Your task to perform on an android device: visit the assistant section in the google photos Image 0: 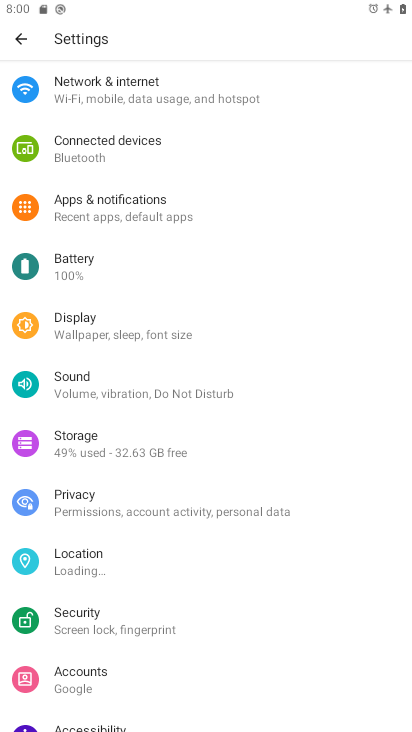
Step 0: press home button
Your task to perform on an android device: visit the assistant section in the google photos Image 1: 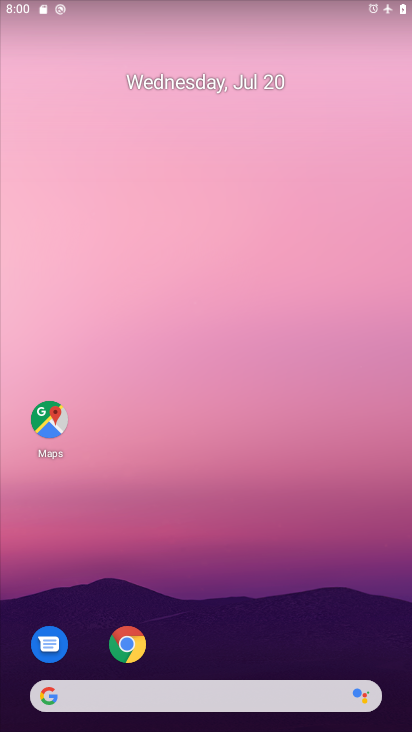
Step 1: drag from (142, 676) to (177, 377)
Your task to perform on an android device: visit the assistant section in the google photos Image 2: 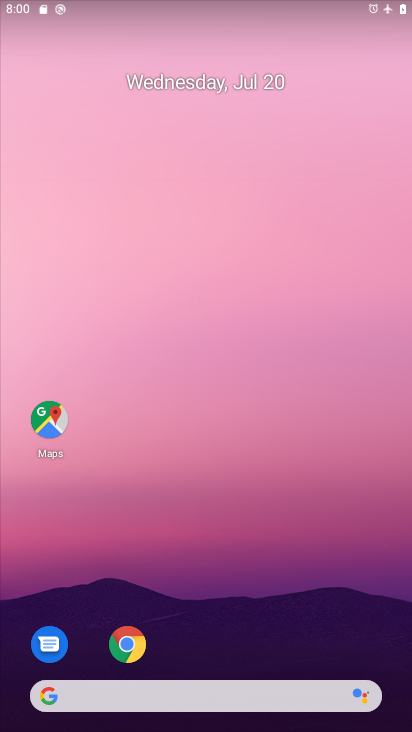
Step 2: drag from (206, 693) to (261, 298)
Your task to perform on an android device: visit the assistant section in the google photos Image 3: 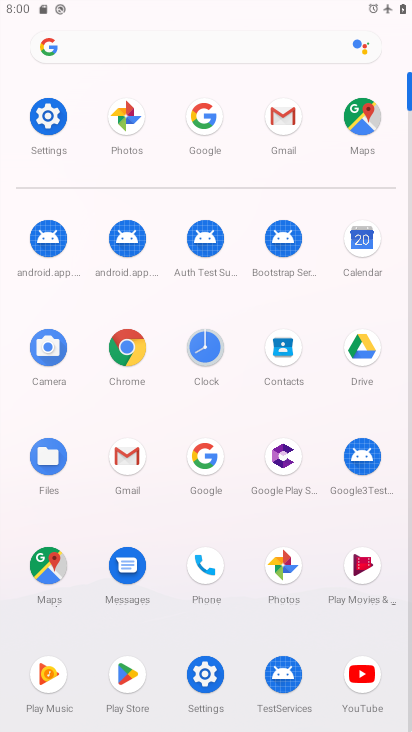
Step 3: click (296, 572)
Your task to perform on an android device: visit the assistant section in the google photos Image 4: 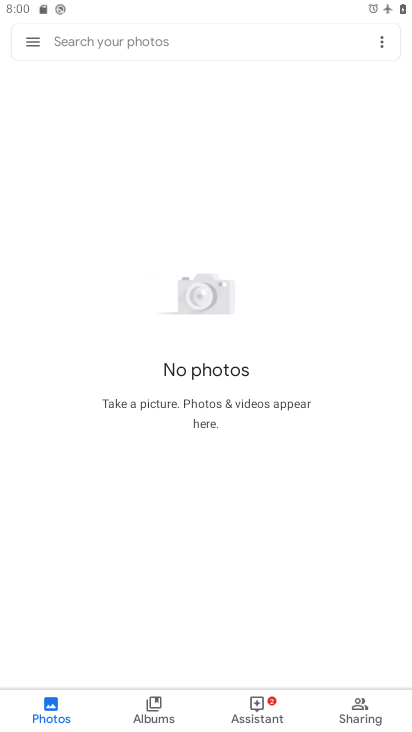
Step 4: click (267, 716)
Your task to perform on an android device: visit the assistant section in the google photos Image 5: 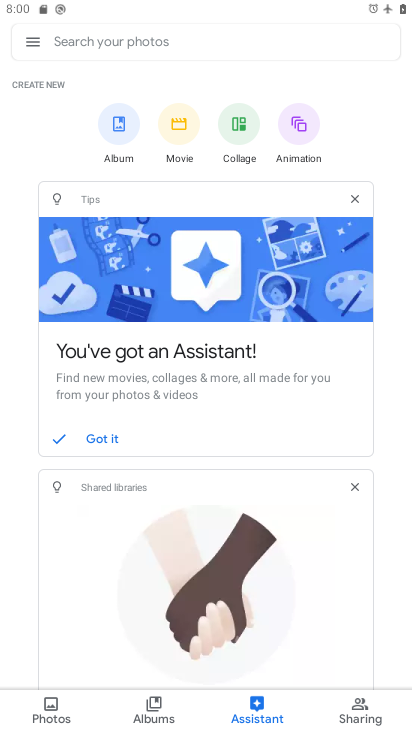
Step 5: task complete